Your task to perform on an android device: Open Chrome and go to settings Image 0: 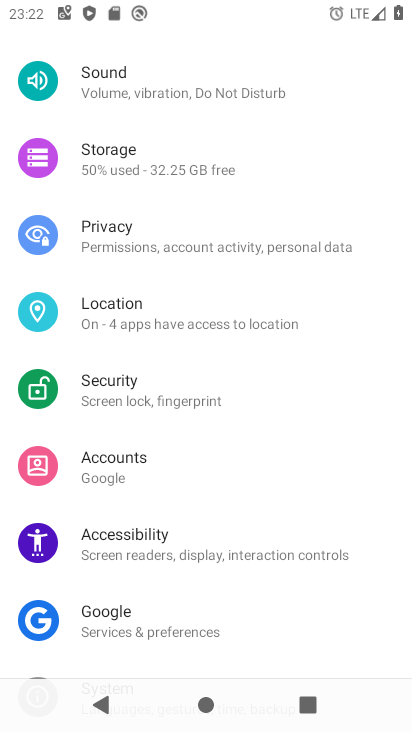
Step 0: press home button
Your task to perform on an android device: Open Chrome and go to settings Image 1: 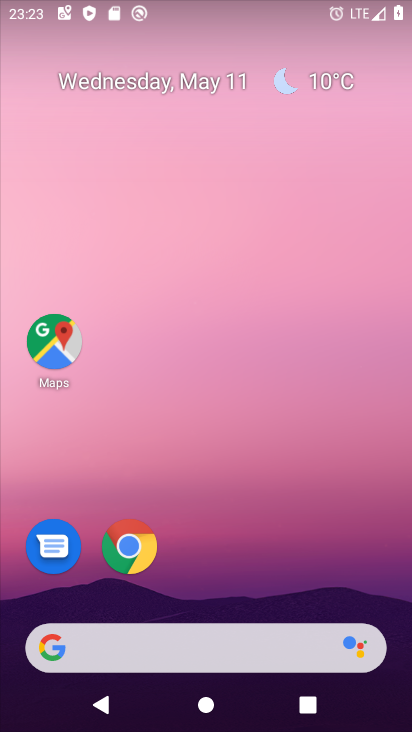
Step 1: click (130, 546)
Your task to perform on an android device: Open Chrome and go to settings Image 2: 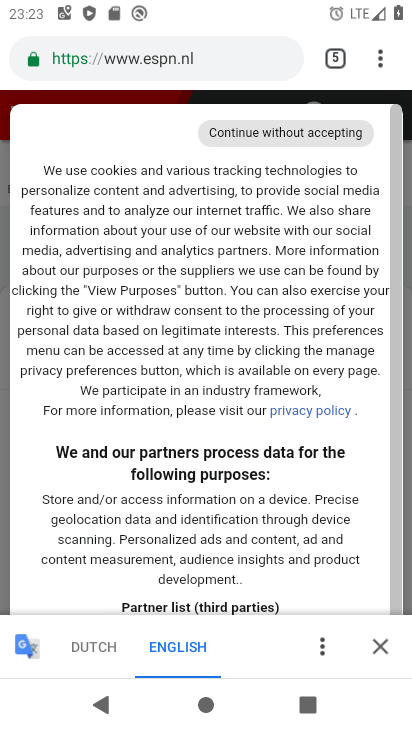
Step 2: click (381, 60)
Your task to perform on an android device: Open Chrome and go to settings Image 3: 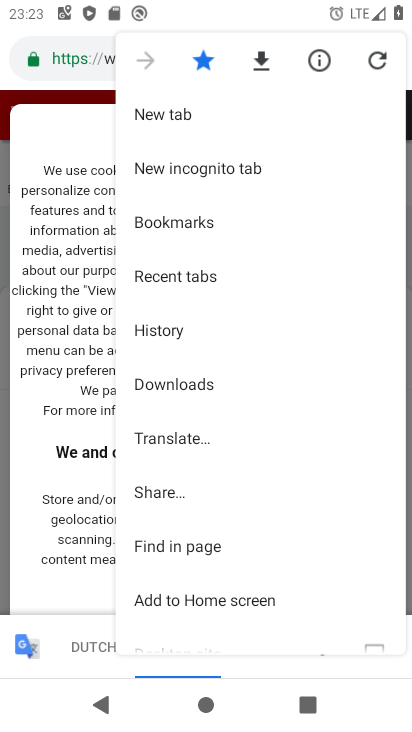
Step 3: drag from (274, 552) to (259, 236)
Your task to perform on an android device: Open Chrome and go to settings Image 4: 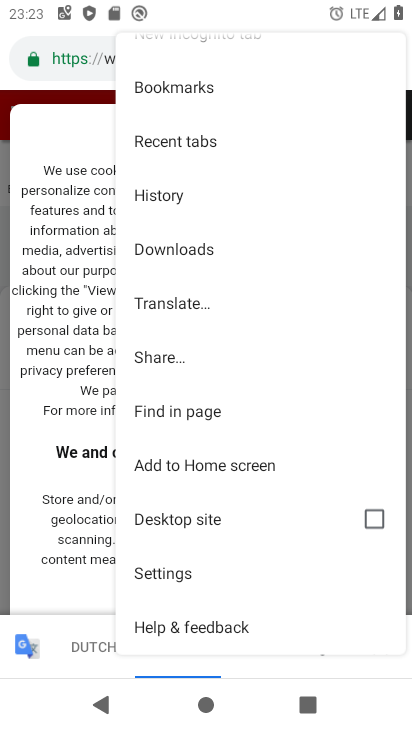
Step 4: click (159, 573)
Your task to perform on an android device: Open Chrome and go to settings Image 5: 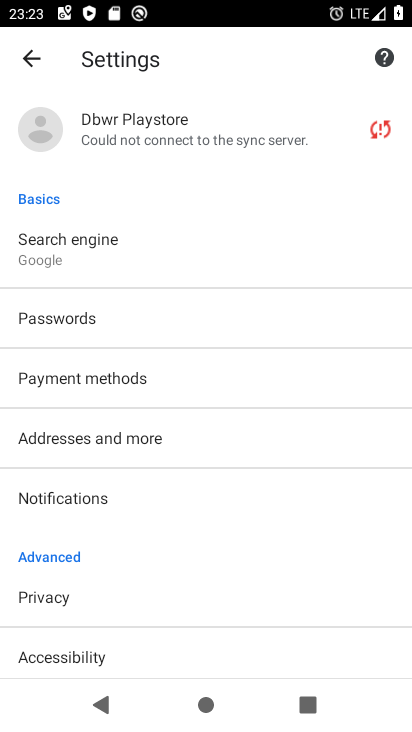
Step 5: task complete